Your task to perform on an android device: Turn off the flashlight Image 0: 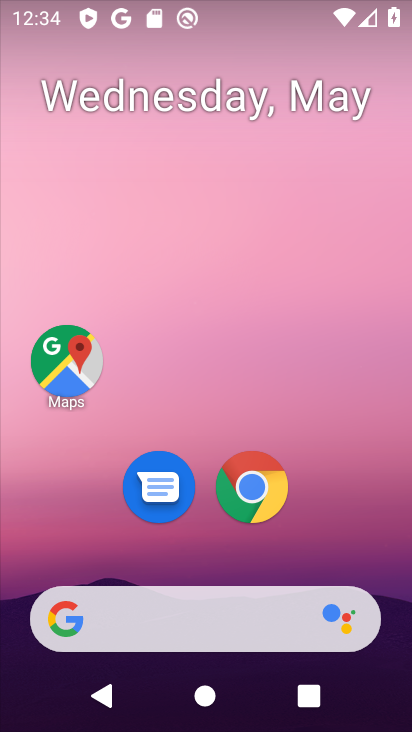
Step 0: click (282, 7)
Your task to perform on an android device: Turn off the flashlight Image 1: 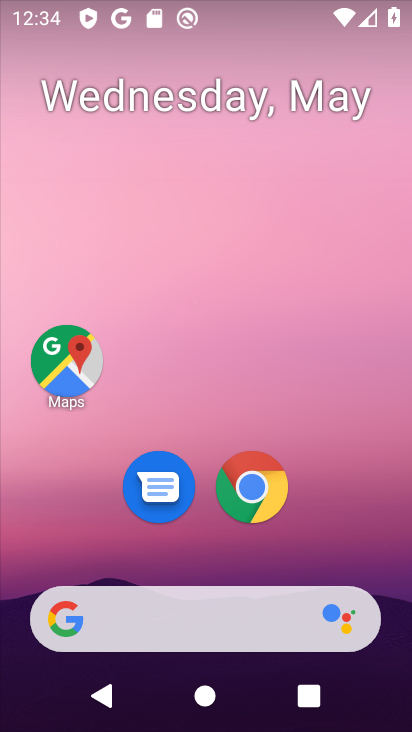
Step 1: drag from (262, 157) to (286, 6)
Your task to perform on an android device: Turn off the flashlight Image 2: 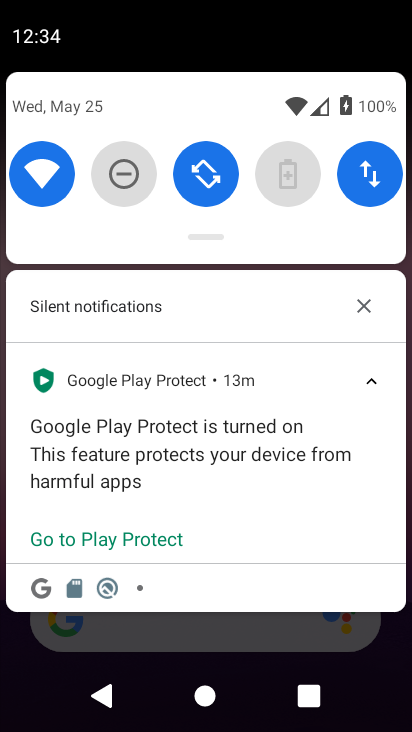
Step 2: drag from (221, 518) to (235, 20)
Your task to perform on an android device: Turn off the flashlight Image 3: 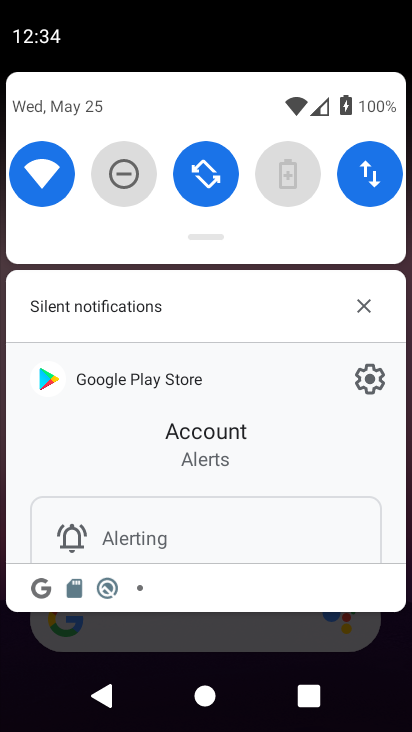
Step 3: press home button
Your task to perform on an android device: Turn off the flashlight Image 4: 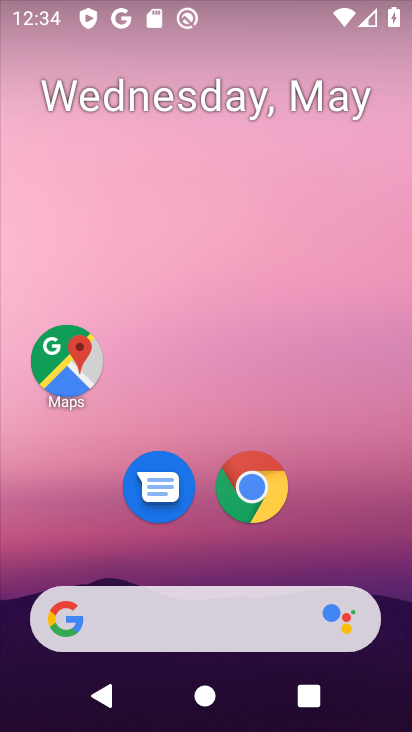
Step 4: drag from (202, 567) to (309, 32)
Your task to perform on an android device: Turn off the flashlight Image 5: 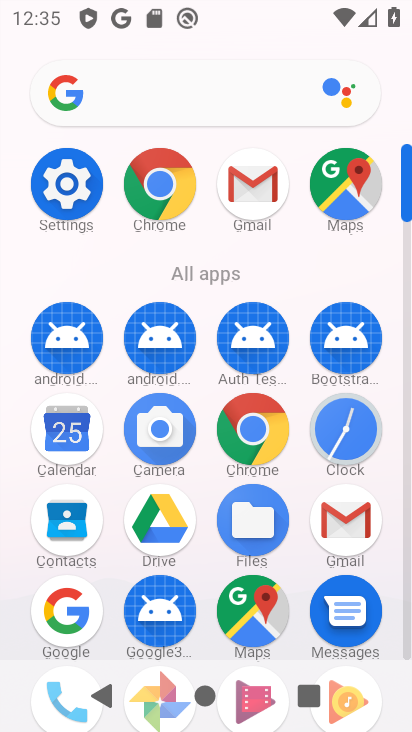
Step 5: click (48, 198)
Your task to perform on an android device: Turn off the flashlight Image 6: 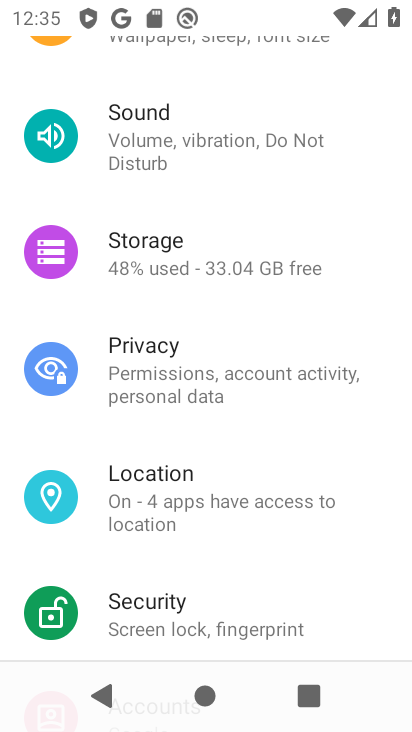
Step 6: drag from (254, 171) to (208, 645)
Your task to perform on an android device: Turn off the flashlight Image 7: 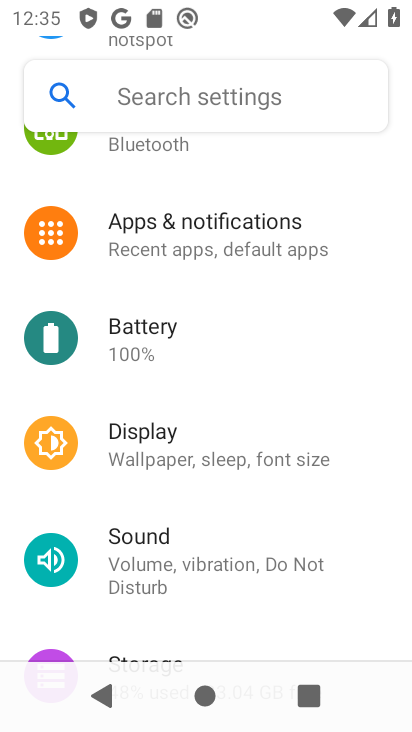
Step 7: click (225, 98)
Your task to perform on an android device: Turn off the flashlight Image 8: 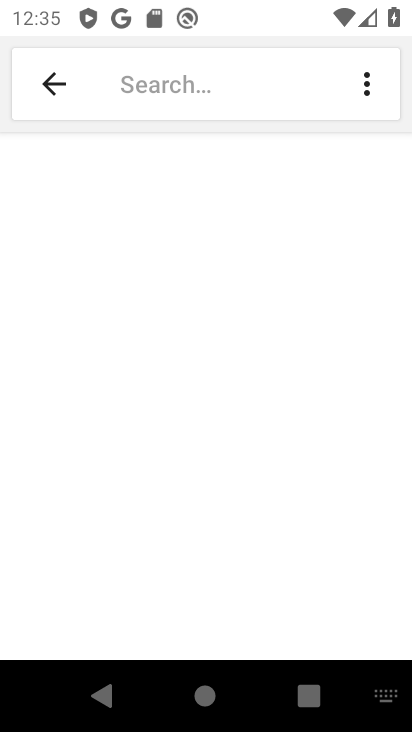
Step 8: type "flashlight"
Your task to perform on an android device: Turn off the flashlight Image 9: 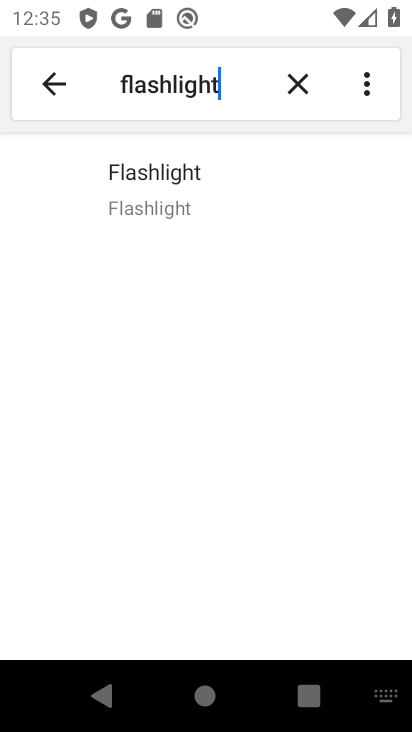
Step 9: click (265, 191)
Your task to perform on an android device: Turn off the flashlight Image 10: 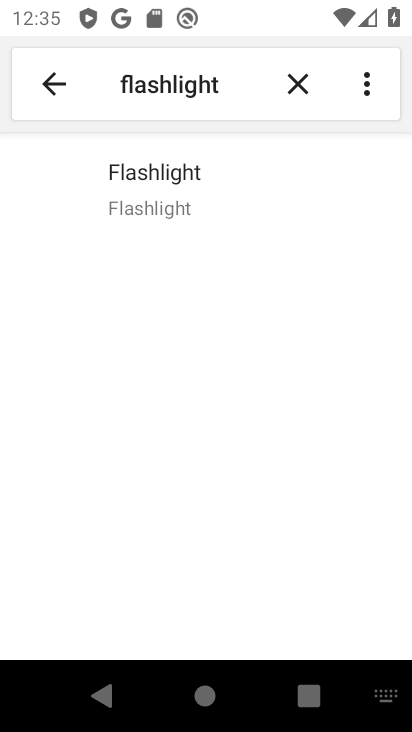
Step 10: task complete